Your task to perform on an android device: What is the recent news? Image 0: 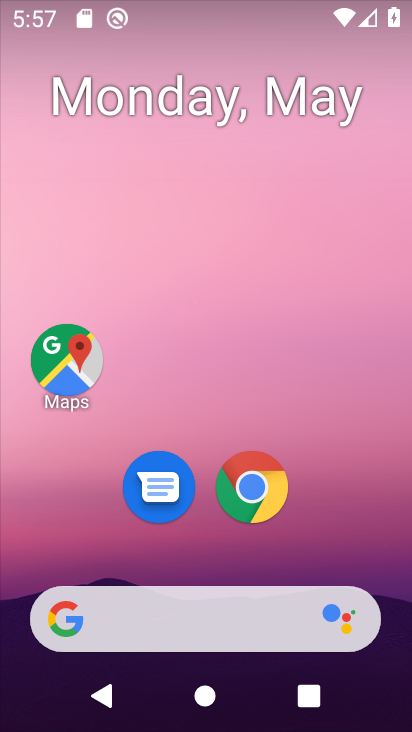
Step 0: drag from (20, 256) to (406, 317)
Your task to perform on an android device: What is the recent news? Image 1: 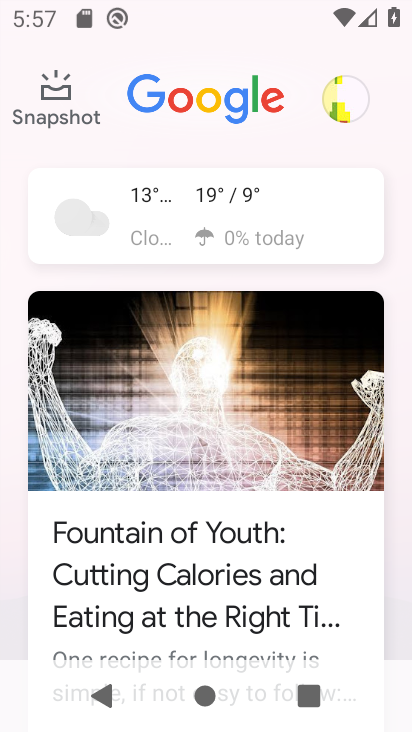
Step 1: task complete